Your task to perform on an android device: allow cookies in the chrome app Image 0: 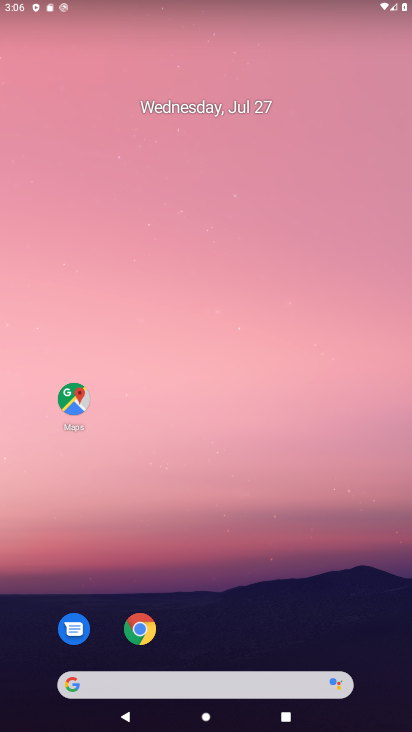
Step 0: press home button
Your task to perform on an android device: allow cookies in the chrome app Image 1: 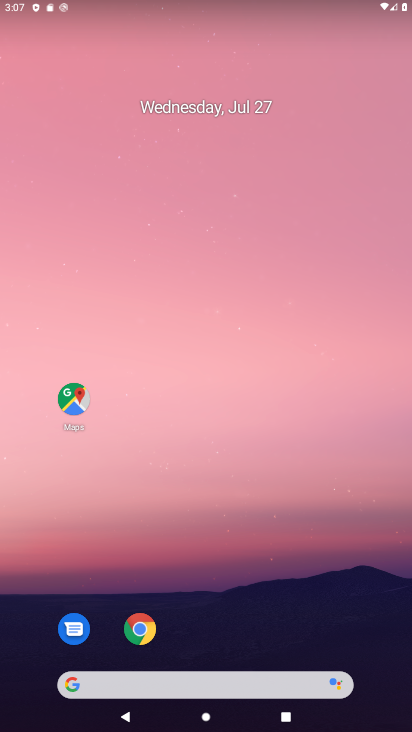
Step 1: drag from (227, 646) to (233, 10)
Your task to perform on an android device: allow cookies in the chrome app Image 2: 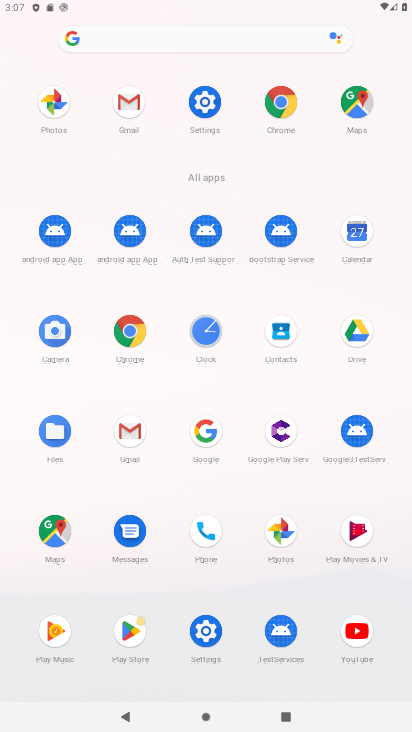
Step 2: click (280, 95)
Your task to perform on an android device: allow cookies in the chrome app Image 3: 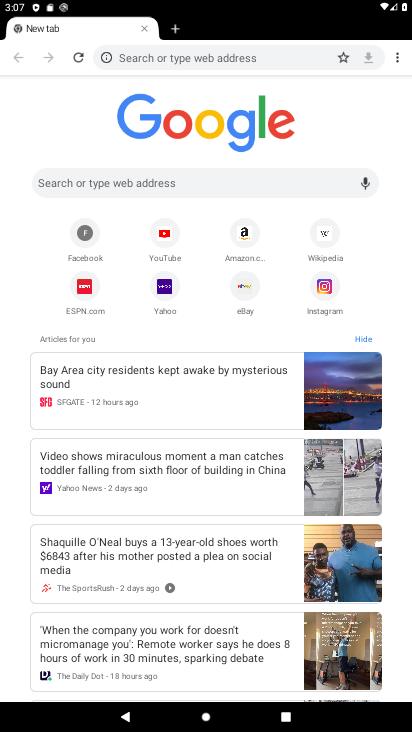
Step 3: click (397, 54)
Your task to perform on an android device: allow cookies in the chrome app Image 4: 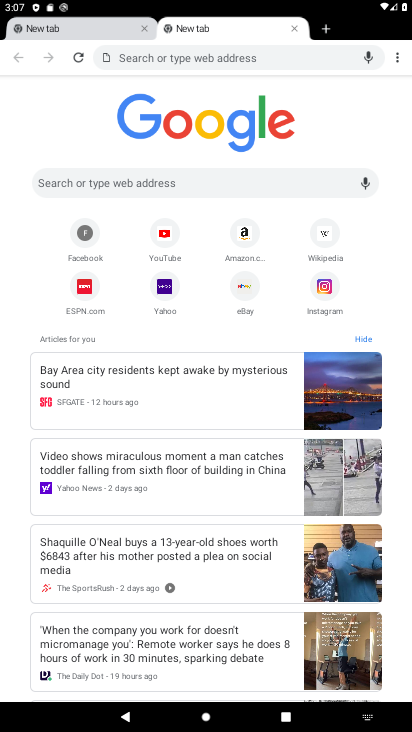
Step 4: click (397, 53)
Your task to perform on an android device: allow cookies in the chrome app Image 5: 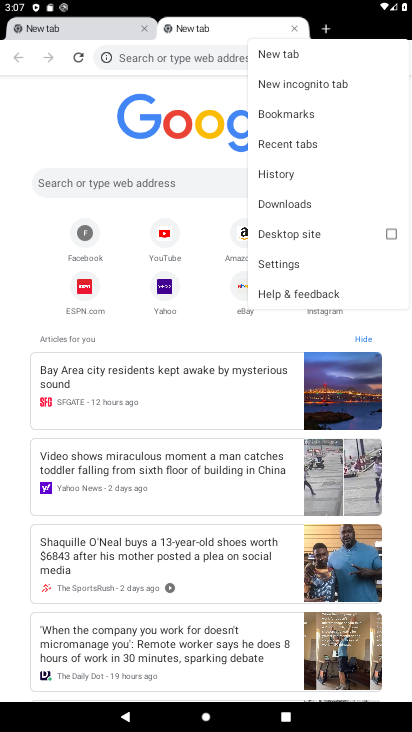
Step 5: click (308, 261)
Your task to perform on an android device: allow cookies in the chrome app Image 6: 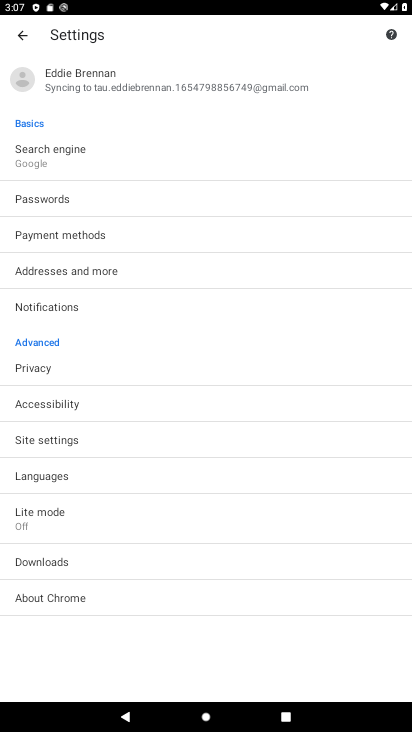
Step 6: click (92, 439)
Your task to perform on an android device: allow cookies in the chrome app Image 7: 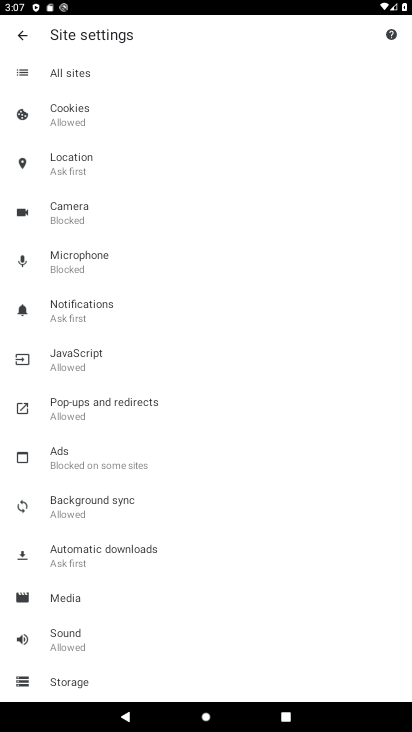
Step 7: click (100, 116)
Your task to perform on an android device: allow cookies in the chrome app Image 8: 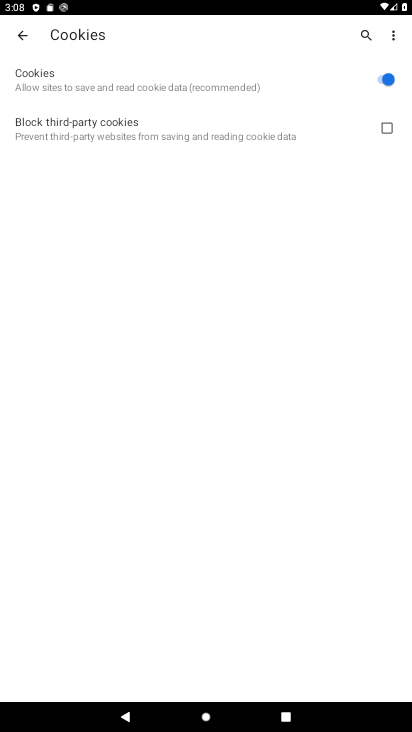
Step 8: task complete